Your task to perform on an android device: check data usage Image 0: 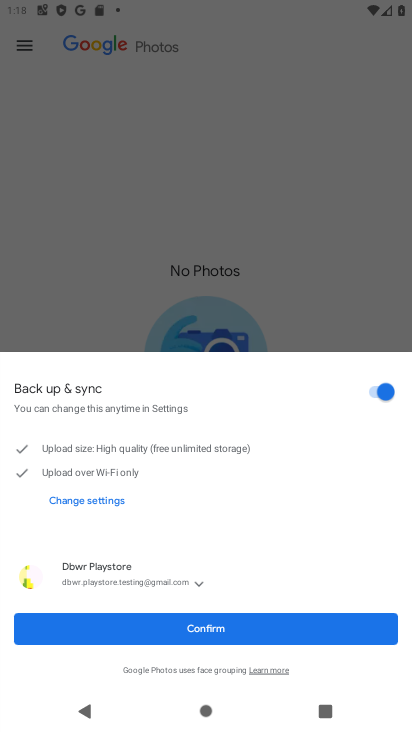
Step 0: press home button
Your task to perform on an android device: check data usage Image 1: 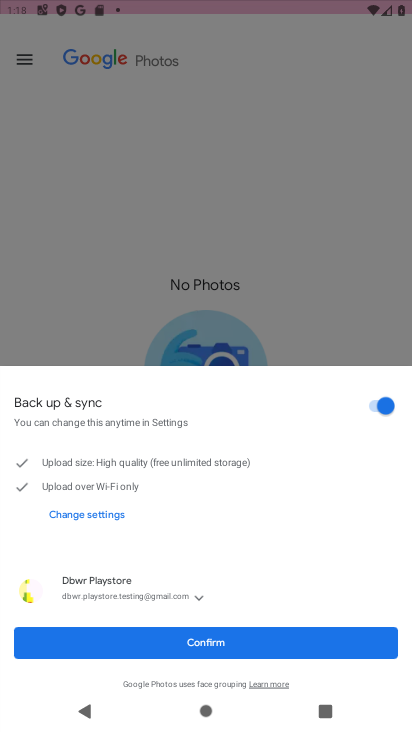
Step 1: drag from (171, 621) to (279, 24)
Your task to perform on an android device: check data usage Image 2: 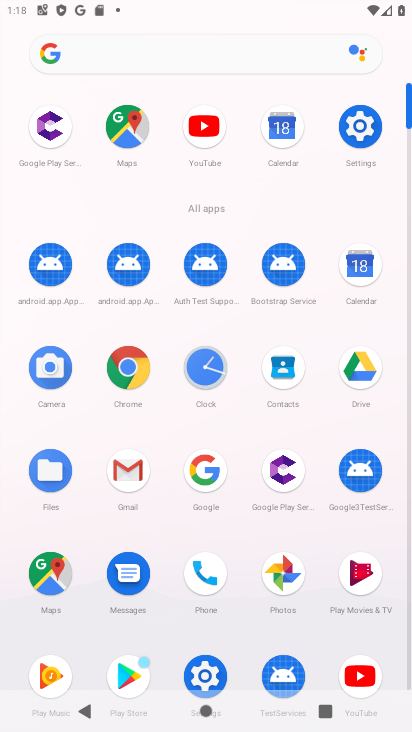
Step 2: click (377, 113)
Your task to perform on an android device: check data usage Image 3: 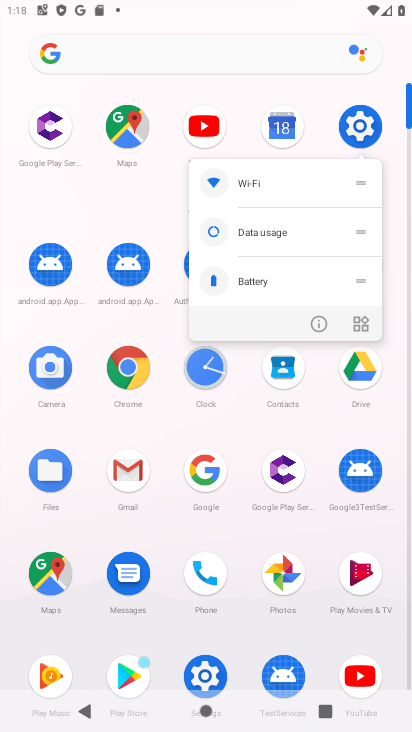
Step 3: click (314, 324)
Your task to perform on an android device: check data usage Image 4: 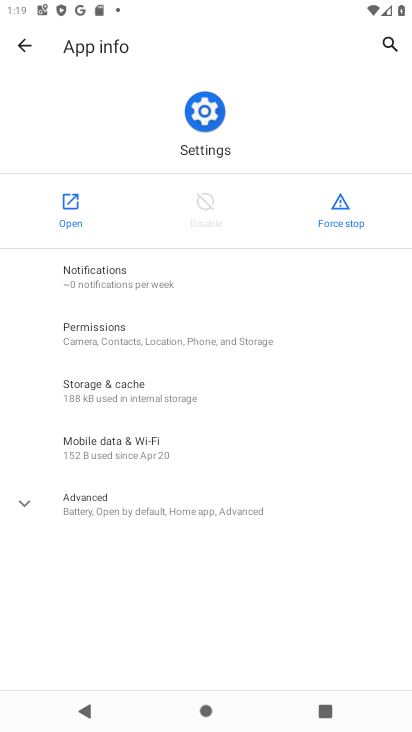
Step 4: click (66, 205)
Your task to perform on an android device: check data usage Image 5: 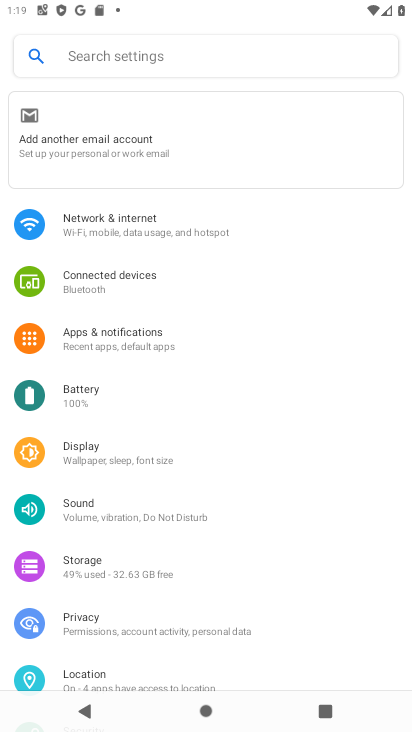
Step 5: click (137, 224)
Your task to perform on an android device: check data usage Image 6: 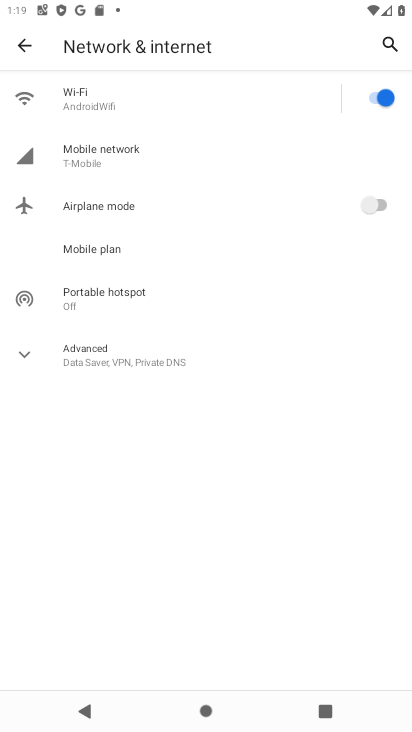
Step 6: click (159, 153)
Your task to perform on an android device: check data usage Image 7: 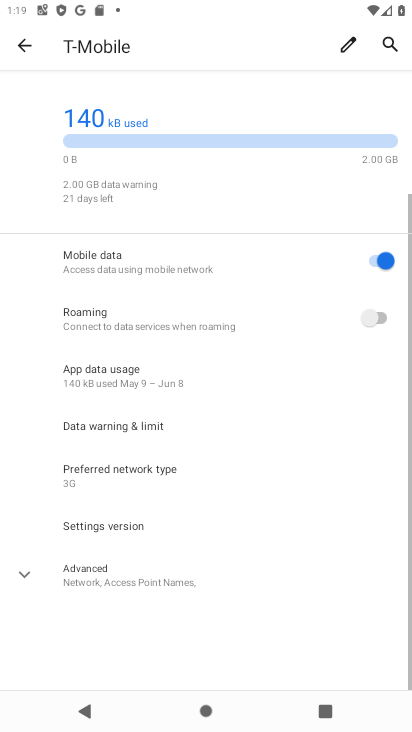
Step 7: task complete